Your task to perform on an android device: toggle location history Image 0: 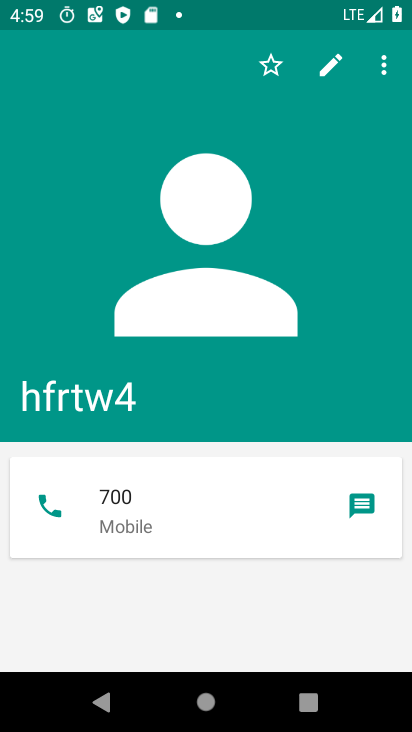
Step 0: press home button
Your task to perform on an android device: toggle location history Image 1: 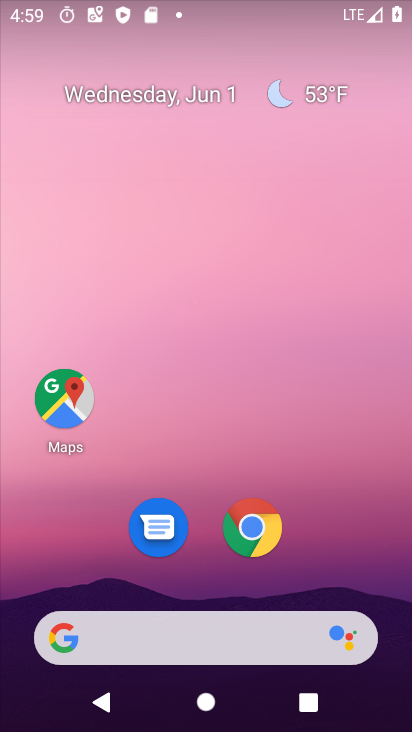
Step 1: drag from (313, 505) to (347, 27)
Your task to perform on an android device: toggle location history Image 2: 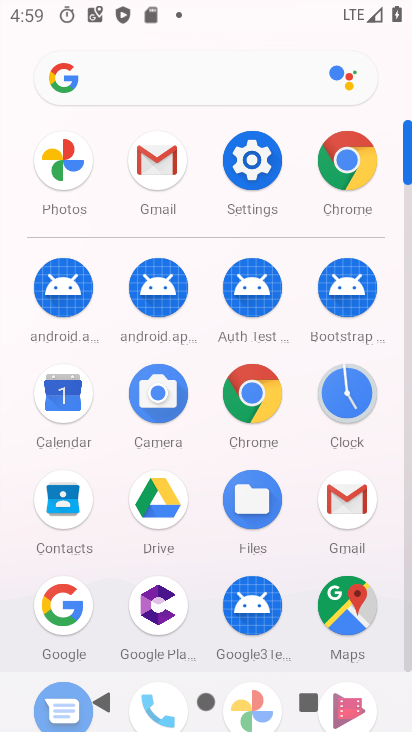
Step 2: click (350, 605)
Your task to perform on an android device: toggle location history Image 3: 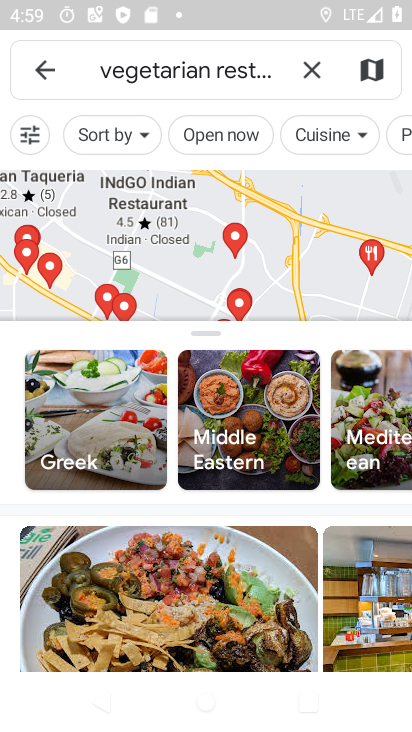
Step 3: click (37, 60)
Your task to perform on an android device: toggle location history Image 4: 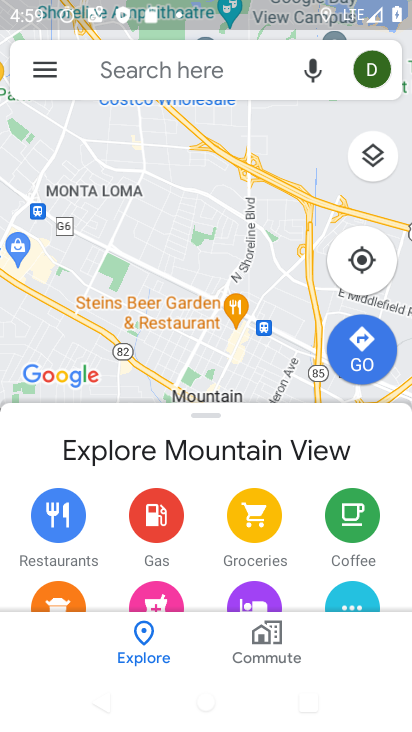
Step 4: click (39, 69)
Your task to perform on an android device: toggle location history Image 5: 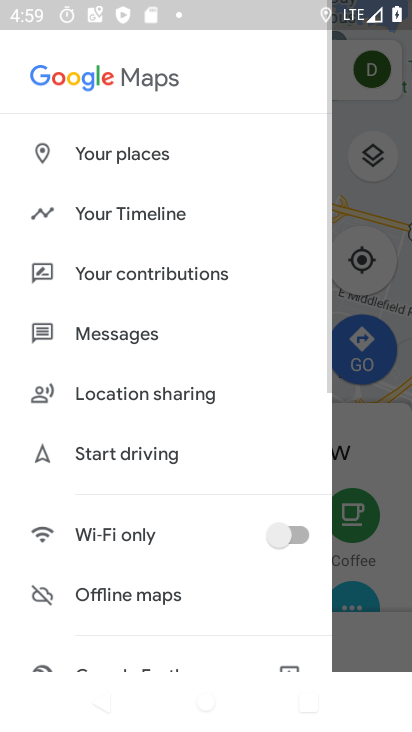
Step 5: click (173, 220)
Your task to perform on an android device: toggle location history Image 6: 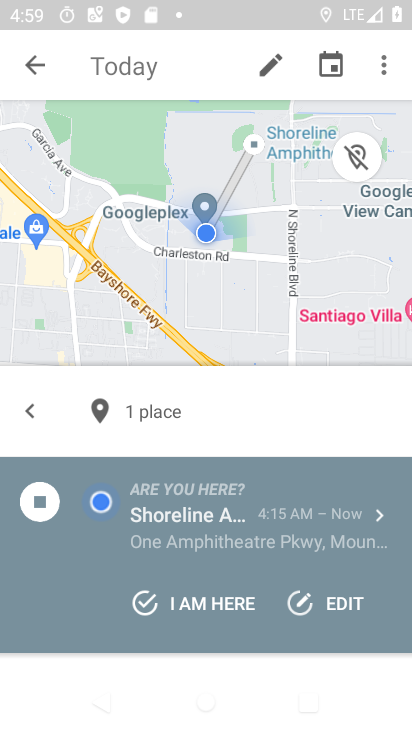
Step 6: click (384, 66)
Your task to perform on an android device: toggle location history Image 7: 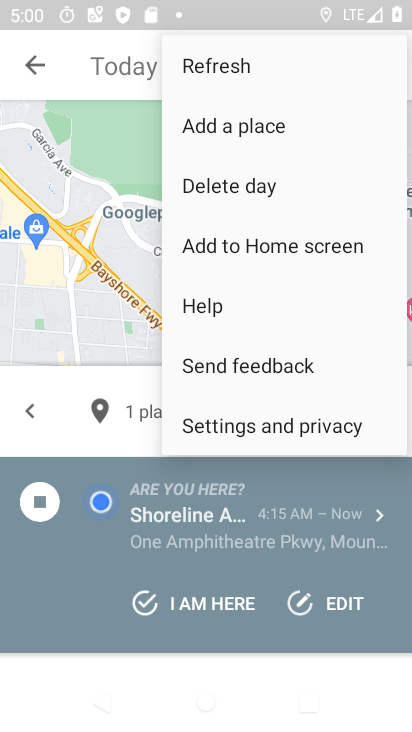
Step 7: click (320, 415)
Your task to perform on an android device: toggle location history Image 8: 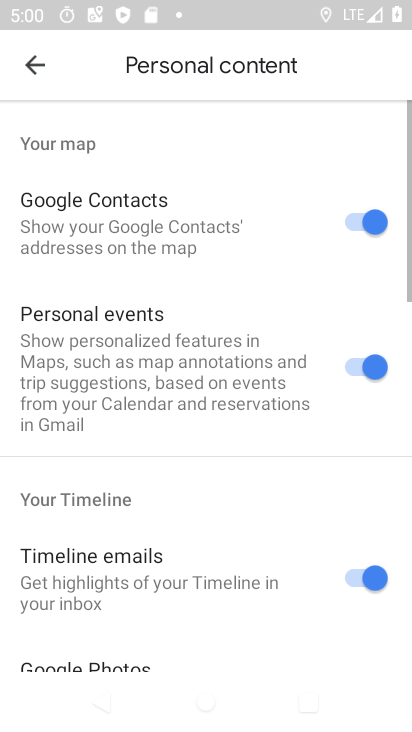
Step 8: drag from (254, 606) to (299, 178)
Your task to perform on an android device: toggle location history Image 9: 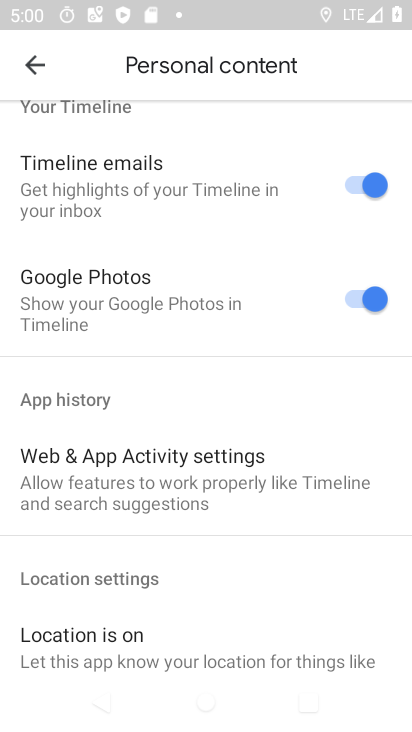
Step 9: drag from (208, 592) to (272, 157)
Your task to perform on an android device: toggle location history Image 10: 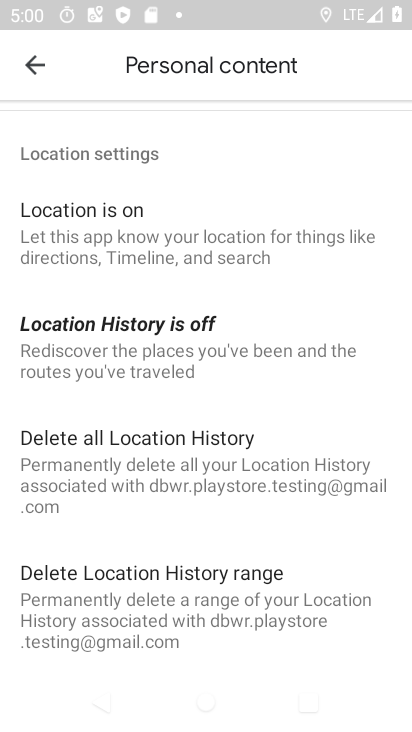
Step 10: click (107, 332)
Your task to perform on an android device: toggle location history Image 11: 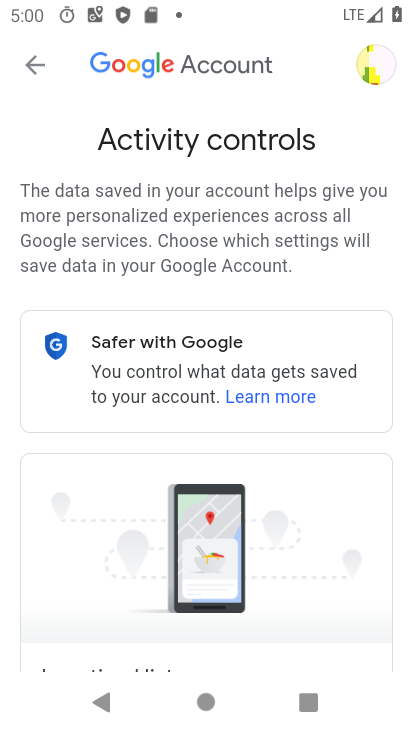
Step 11: drag from (292, 542) to (317, 180)
Your task to perform on an android device: toggle location history Image 12: 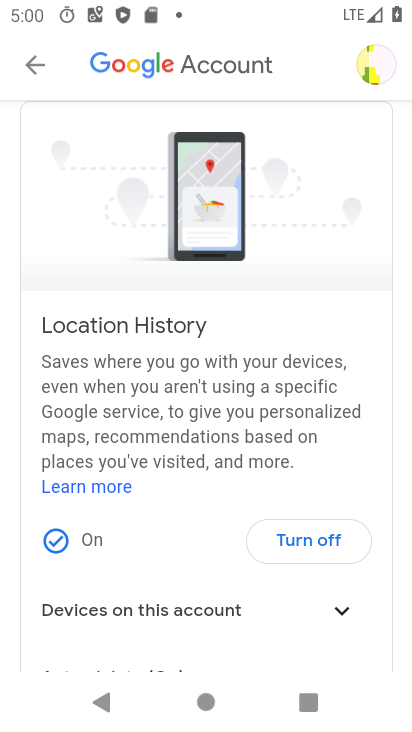
Step 12: click (324, 543)
Your task to perform on an android device: toggle location history Image 13: 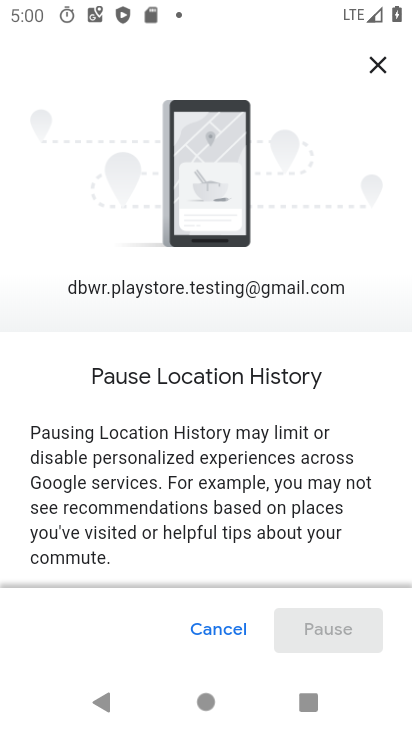
Step 13: drag from (324, 543) to (334, 136)
Your task to perform on an android device: toggle location history Image 14: 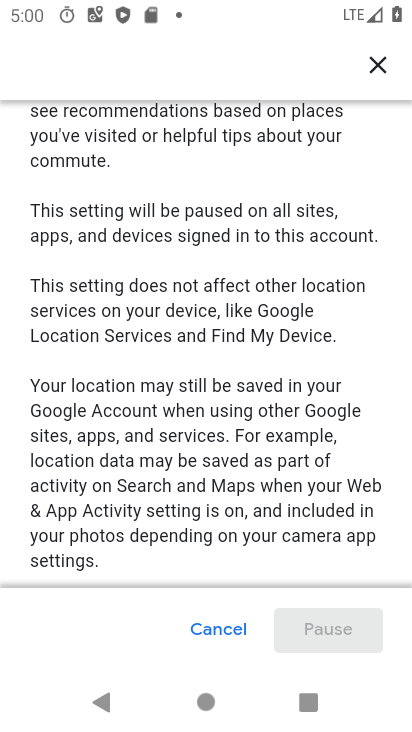
Step 14: drag from (322, 547) to (374, 174)
Your task to perform on an android device: toggle location history Image 15: 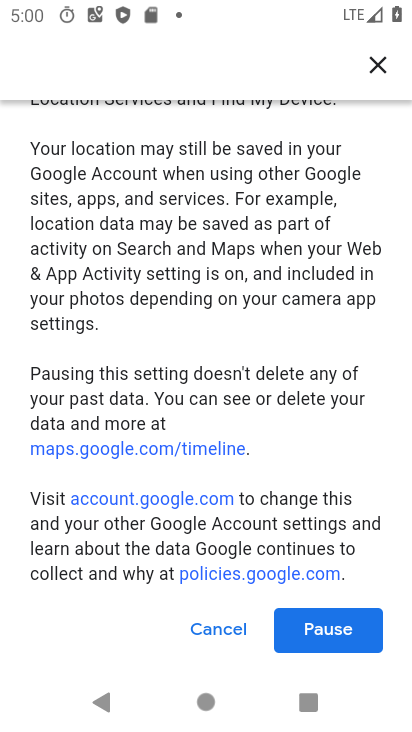
Step 15: click (337, 620)
Your task to perform on an android device: toggle location history Image 16: 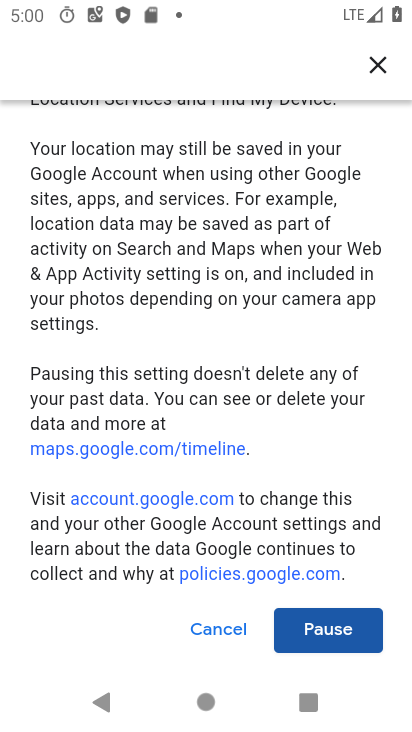
Step 16: click (337, 620)
Your task to perform on an android device: toggle location history Image 17: 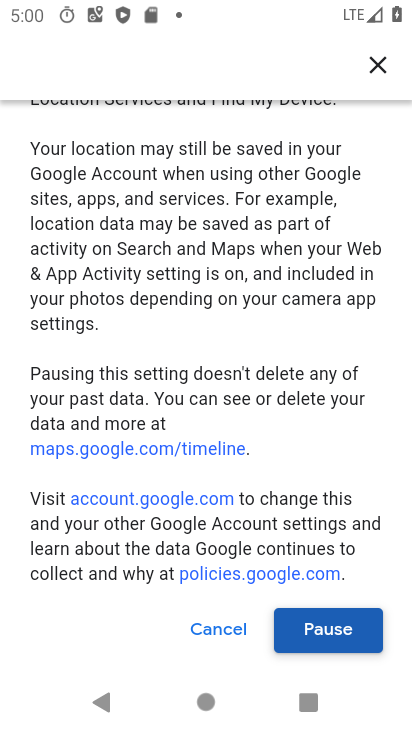
Step 17: click (337, 620)
Your task to perform on an android device: toggle location history Image 18: 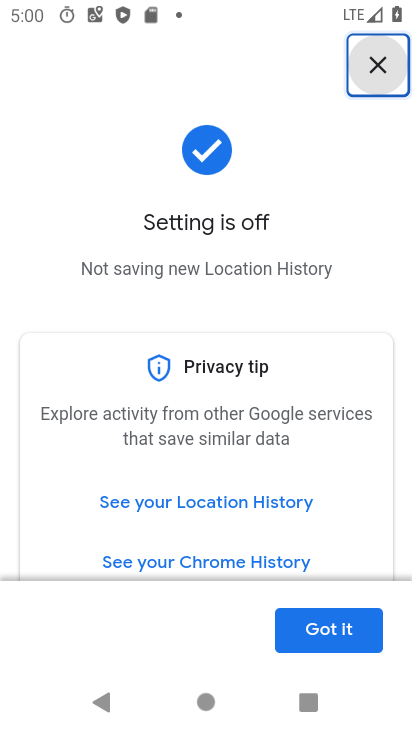
Step 18: click (318, 633)
Your task to perform on an android device: toggle location history Image 19: 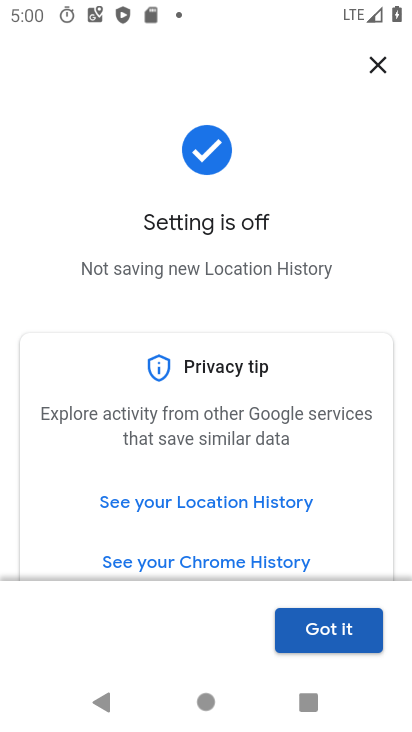
Step 19: click (338, 626)
Your task to perform on an android device: toggle location history Image 20: 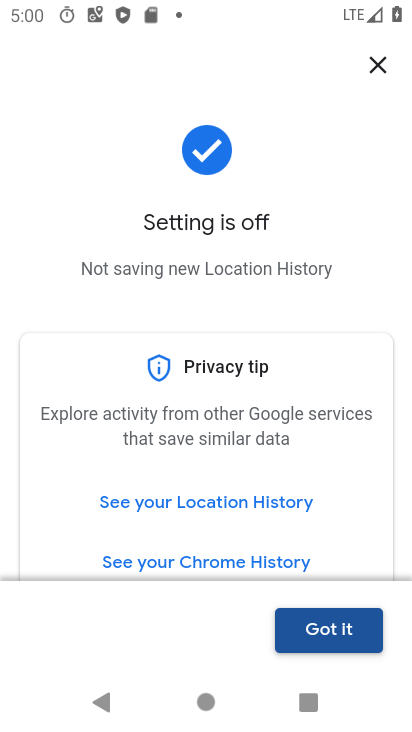
Step 20: click (338, 626)
Your task to perform on an android device: toggle location history Image 21: 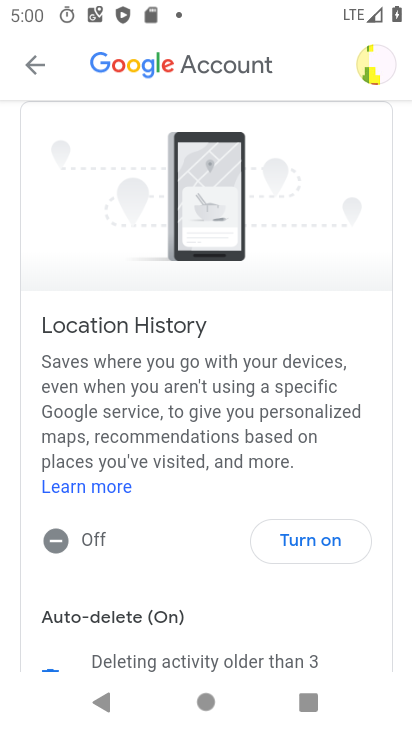
Step 21: task complete